Your task to perform on an android device: Open settings on Google Maps Image 0: 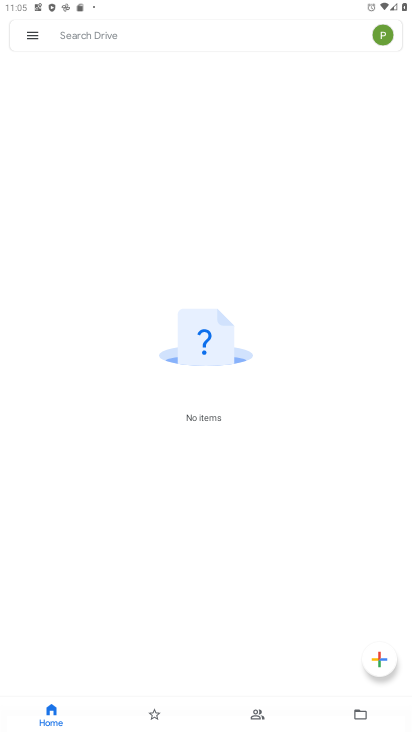
Step 0: press home button
Your task to perform on an android device: Open settings on Google Maps Image 1: 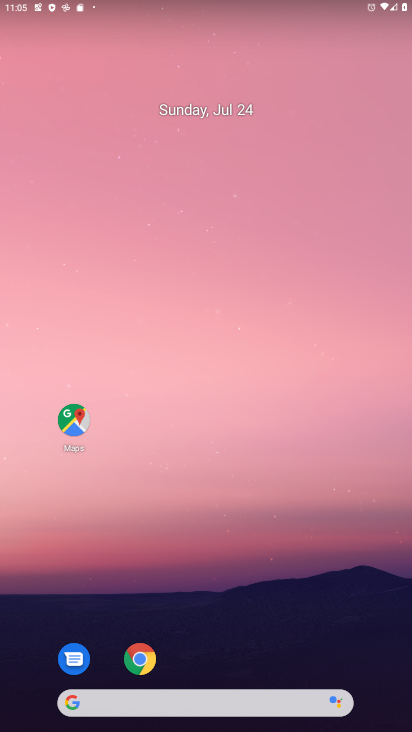
Step 1: click (62, 417)
Your task to perform on an android device: Open settings on Google Maps Image 2: 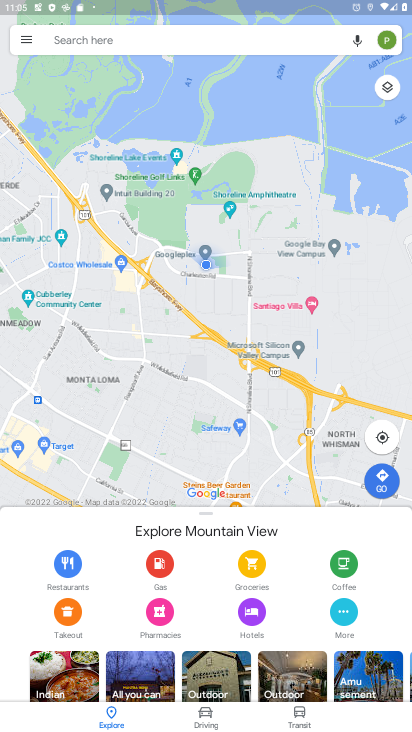
Step 2: task complete